Your task to perform on an android device: turn on location history Image 0: 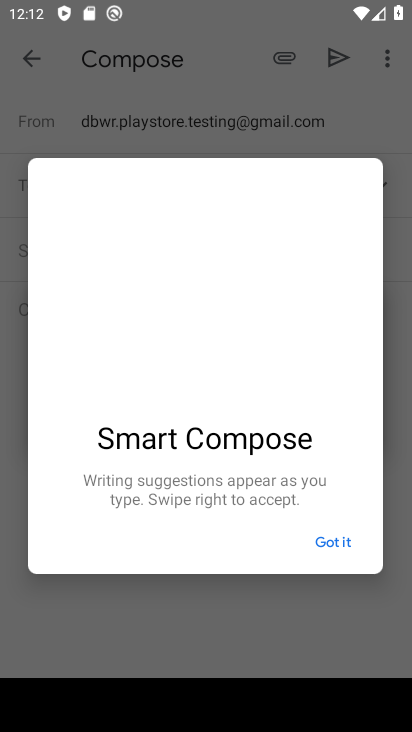
Step 0: press home button
Your task to perform on an android device: turn on location history Image 1: 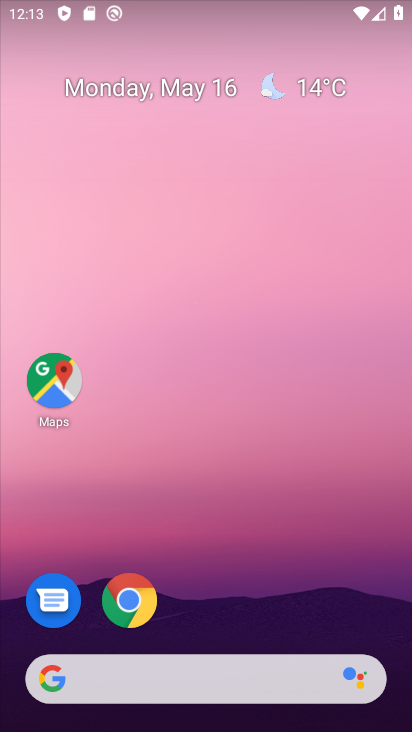
Step 1: drag from (190, 598) to (248, 72)
Your task to perform on an android device: turn on location history Image 2: 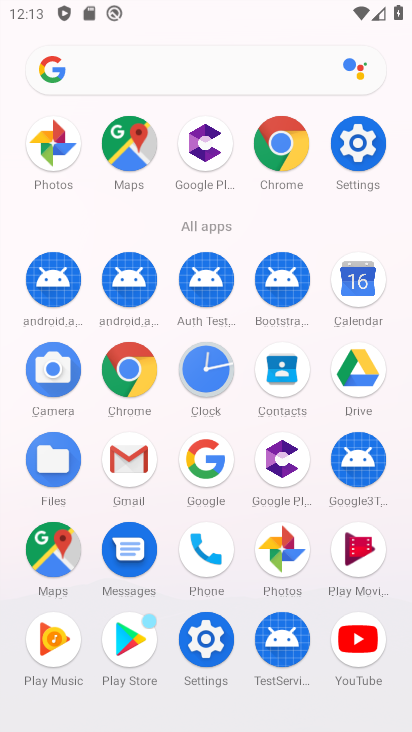
Step 2: click (220, 646)
Your task to perform on an android device: turn on location history Image 3: 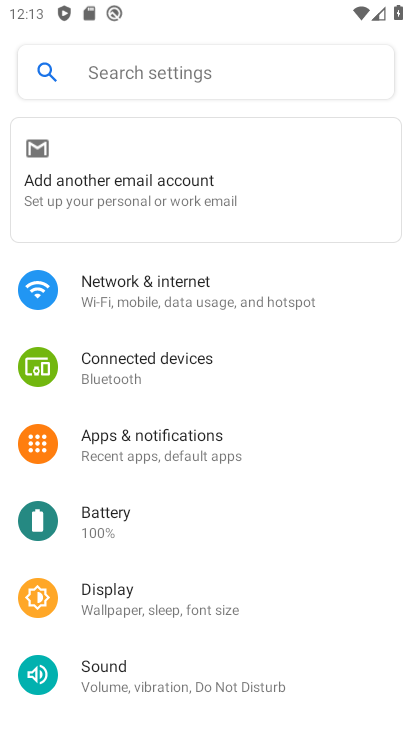
Step 3: drag from (225, 658) to (282, 310)
Your task to perform on an android device: turn on location history Image 4: 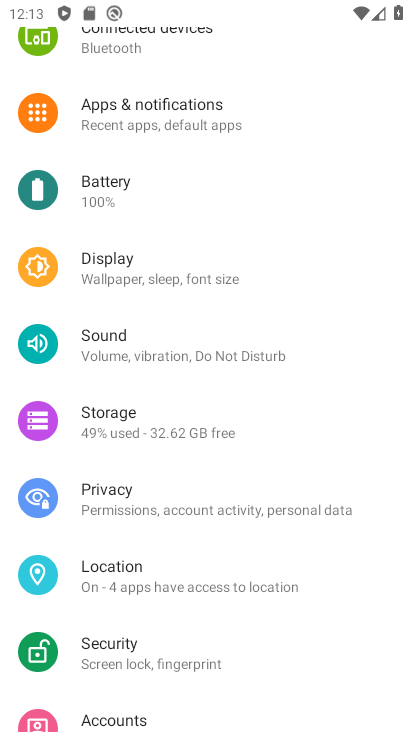
Step 4: click (160, 579)
Your task to perform on an android device: turn on location history Image 5: 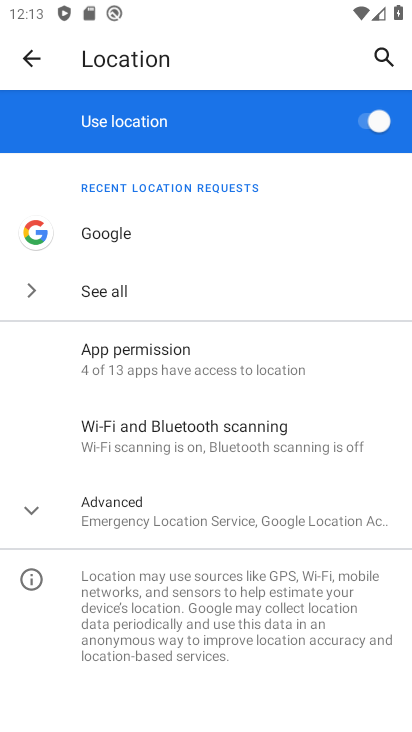
Step 5: task complete